Your task to perform on an android device: Open display settings Image 0: 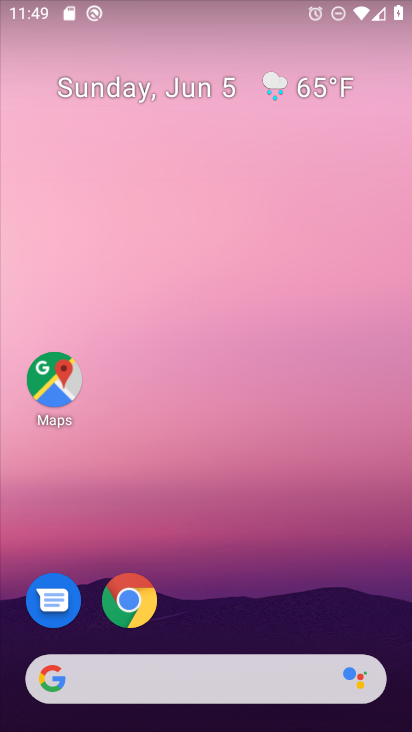
Step 0: drag from (372, 609) to (268, 165)
Your task to perform on an android device: Open display settings Image 1: 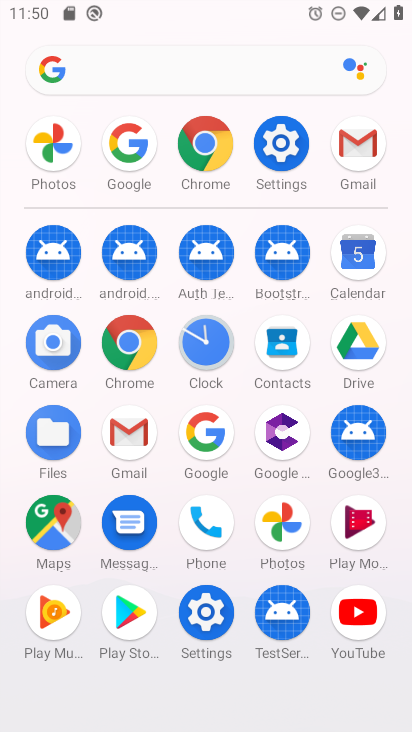
Step 1: click (205, 620)
Your task to perform on an android device: Open display settings Image 2: 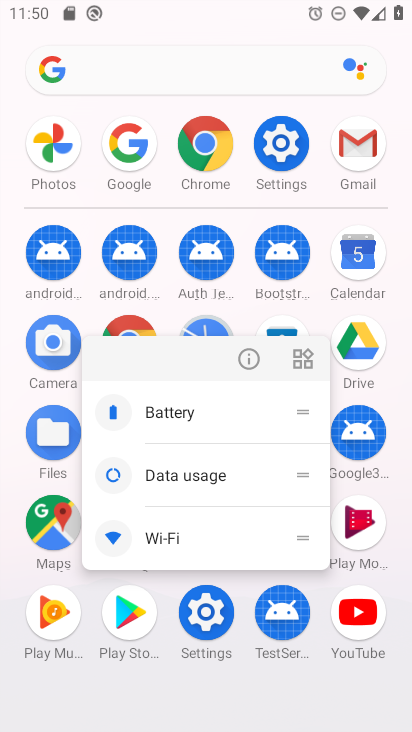
Step 2: click (222, 623)
Your task to perform on an android device: Open display settings Image 3: 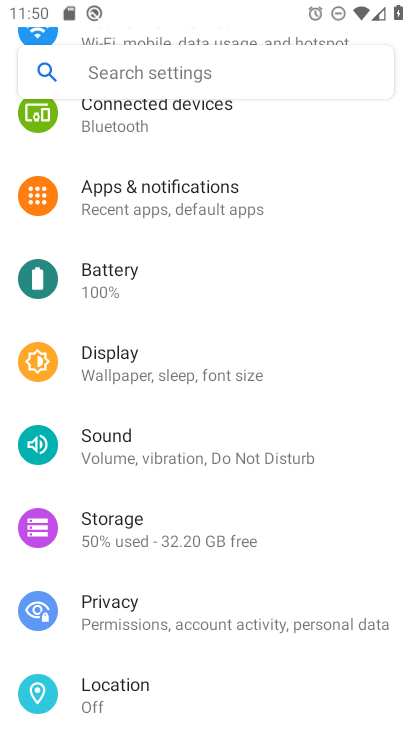
Step 3: click (163, 370)
Your task to perform on an android device: Open display settings Image 4: 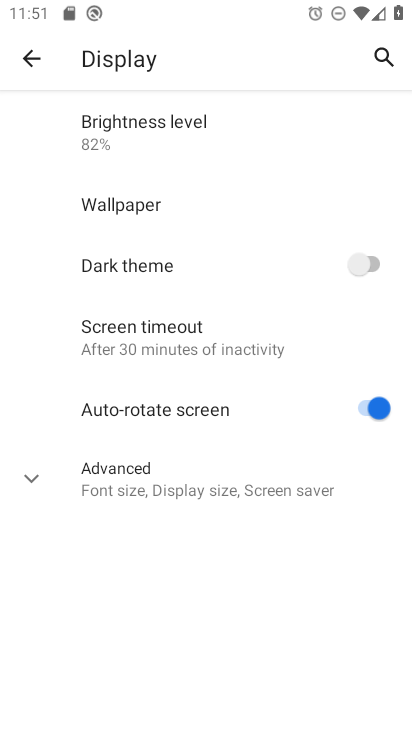
Step 4: task complete